Your task to perform on an android device: turn on priority inbox in the gmail app Image 0: 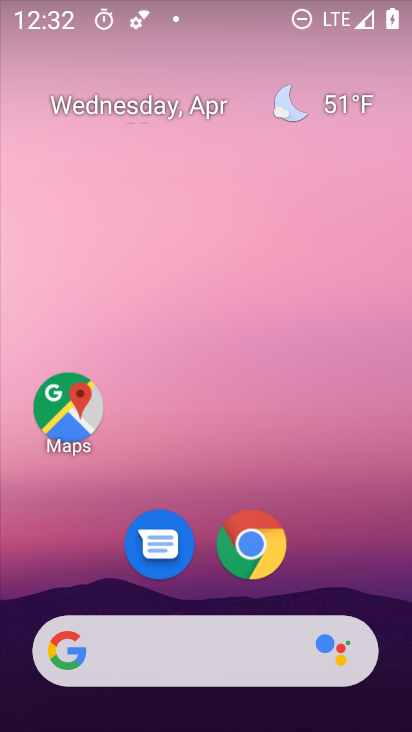
Step 0: drag from (353, 563) to (350, 169)
Your task to perform on an android device: turn on priority inbox in the gmail app Image 1: 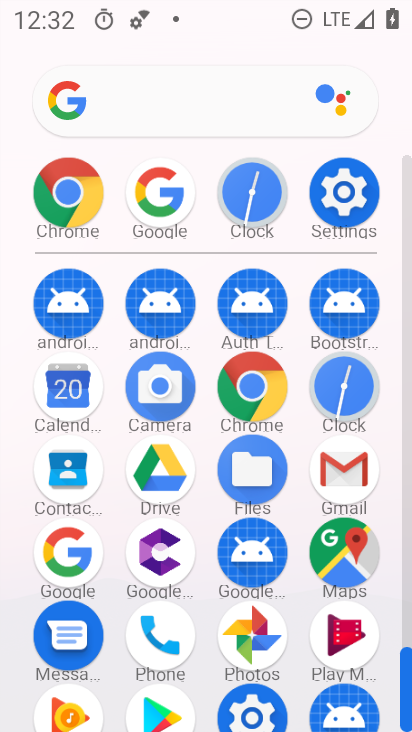
Step 1: click (351, 469)
Your task to perform on an android device: turn on priority inbox in the gmail app Image 2: 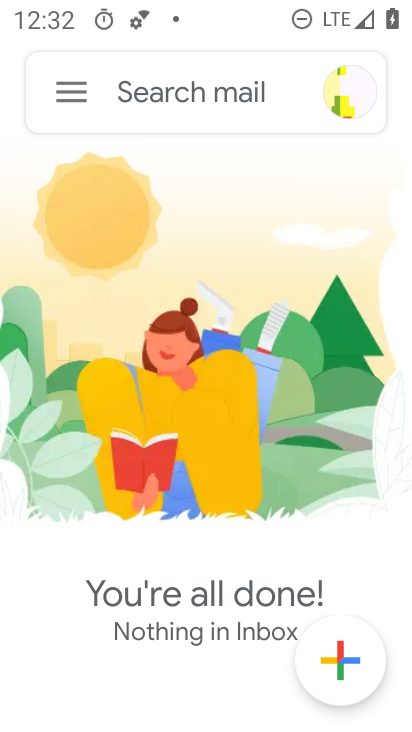
Step 2: click (68, 83)
Your task to perform on an android device: turn on priority inbox in the gmail app Image 3: 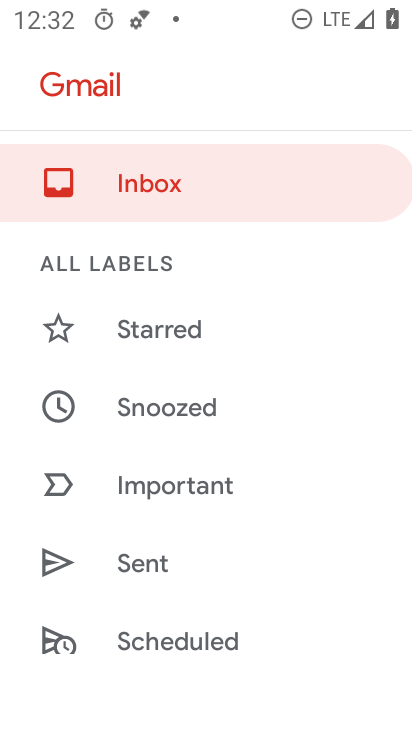
Step 3: drag from (328, 520) to (333, 428)
Your task to perform on an android device: turn on priority inbox in the gmail app Image 4: 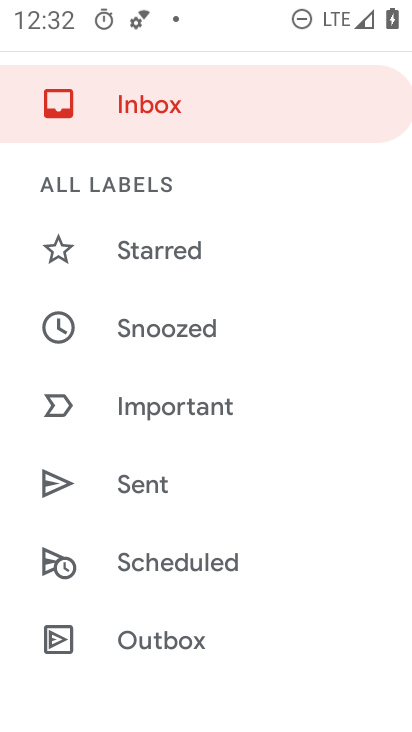
Step 4: drag from (336, 531) to (337, 414)
Your task to perform on an android device: turn on priority inbox in the gmail app Image 5: 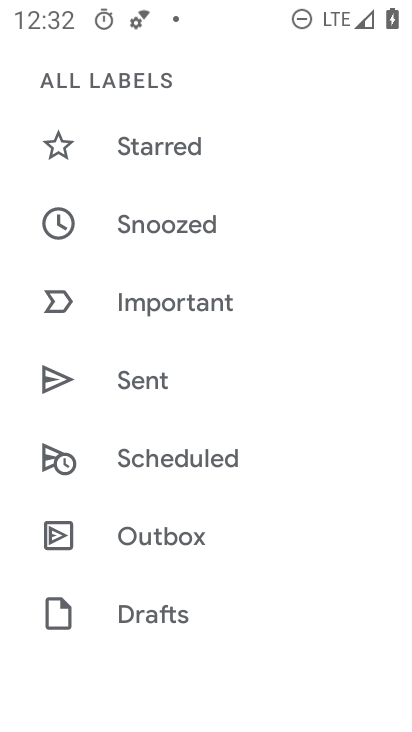
Step 5: drag from (328, 554) to (323, 433)
Your task to perform on an android device: turn on priority inbox in the gmail app Image 6: 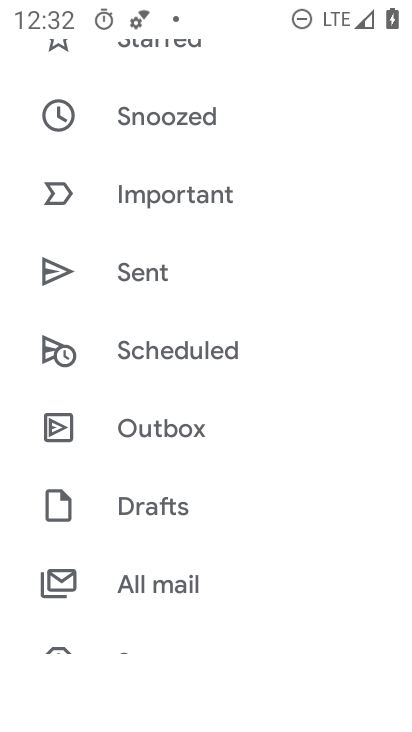
Step 6: drag from (319, 557) to (332, 450)
Your task to perform on an android device: turn on priority inbox in the gmail app Image 7: 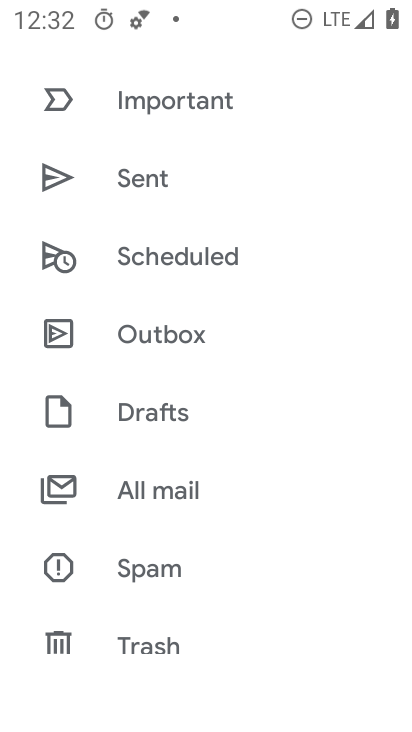
Step 7: drag from (341, 555) to (334, 416)
Your task to perform on an android device: turn on priority inbox in the gmail app Image 8: 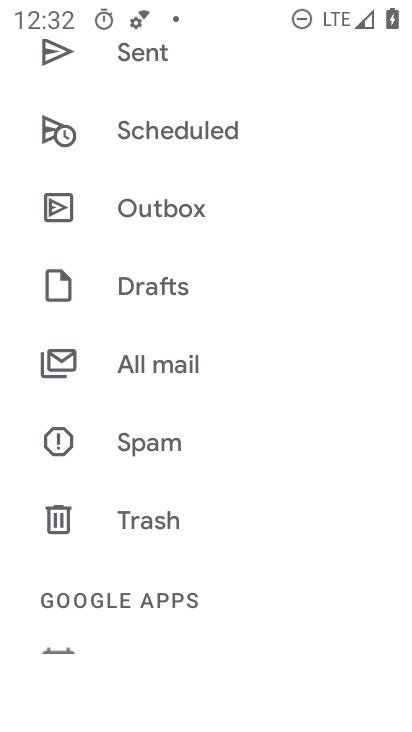
Step 8: drag from (313, 546) to (320, 401)
Your task to perform on an android device: turn on priority inbox in the gmail app Image 9: 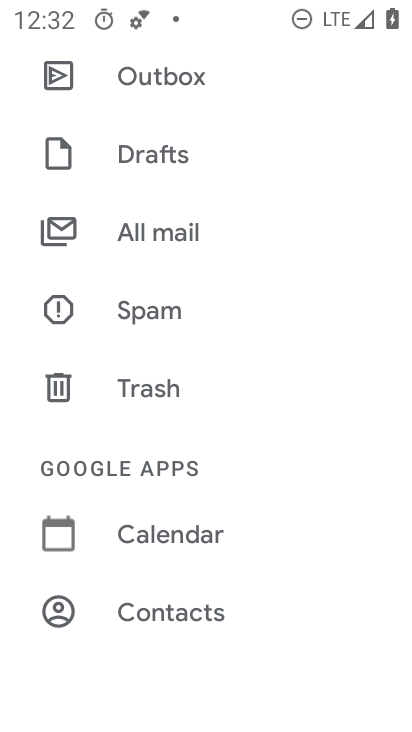
Step 9: drag from (329, 562) to (326, 432)
Your task to perform on an android device: turn on priority inbox in the gmail app Image 10: 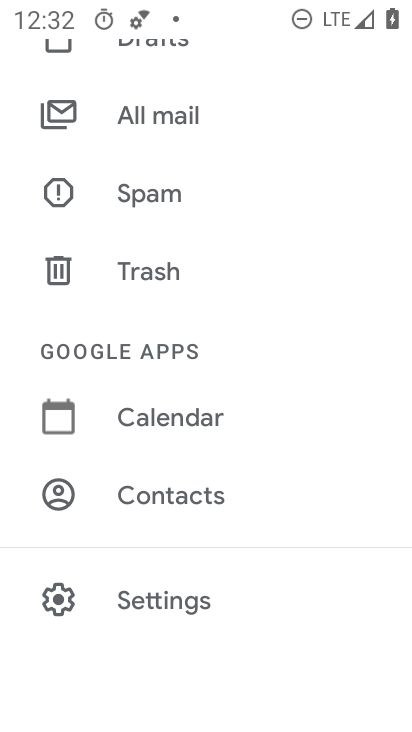
Step 10: drag from (307, 583) to (319, 489)
Your task to perform on an android device: turn on priority inbox in the gmail app Image 11: 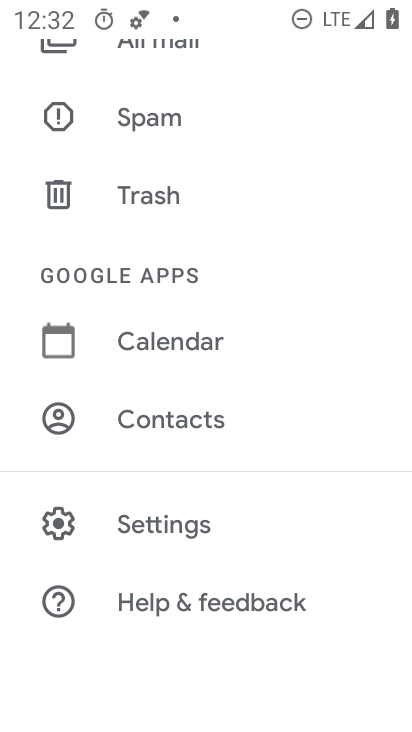
Step 11: click (206, 521)
Your task to perform on an android device: turn on priority inbox in the gmail app Image 12: 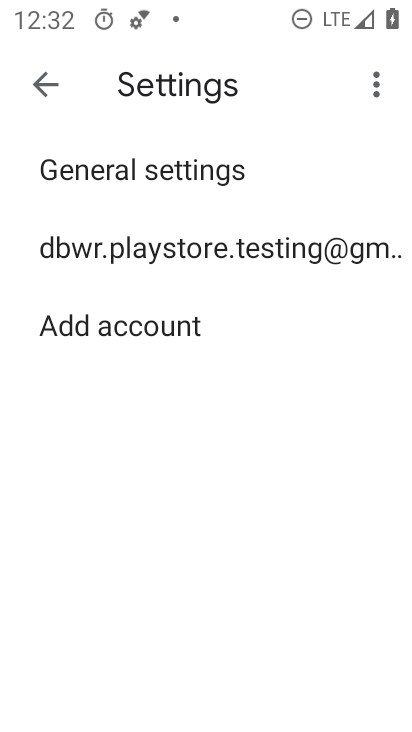
Step 12: click (265, 246)
Your task to perform on an android device: turn on priority inbox in the gmail app Image 13: 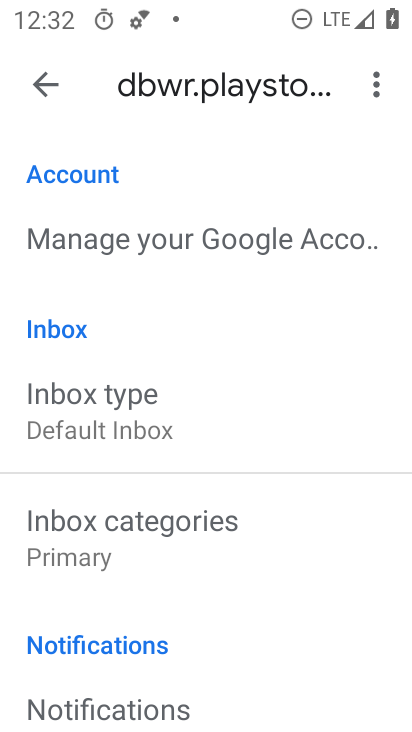
Step 13: drag from (325, 574) to (347, 399)
Your task to perform on an android device: turn on priority inbox in the gmail app Image 14: 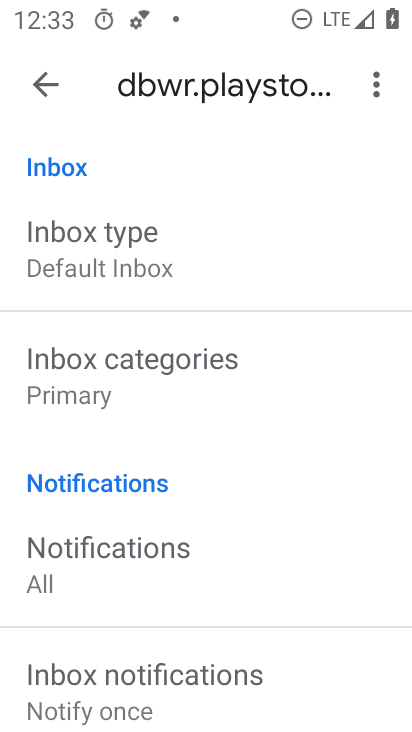
Step 14: drag from (354, 578) to (361, 451)
Your task to perform on an android device: turn on priority inbox in the gmail app Image 15: 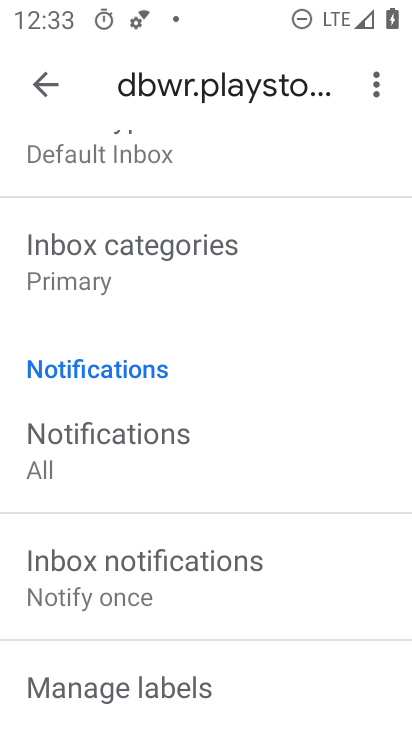
Step 15: drag from (364, 585) to (362, 448)
Your task to perform on an android device: turn on priority inbox in the gmail app Image 16: 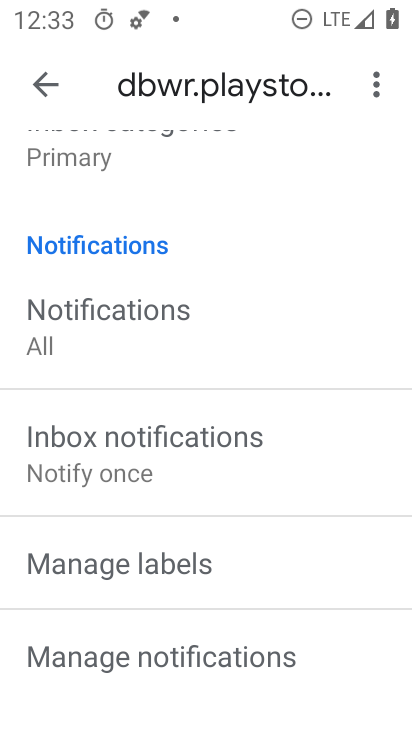
Step 16: drag from (365, 645) to (366, 516)
Your task to perform on an android device: turn on priority inbox in the gmail app Image 17: 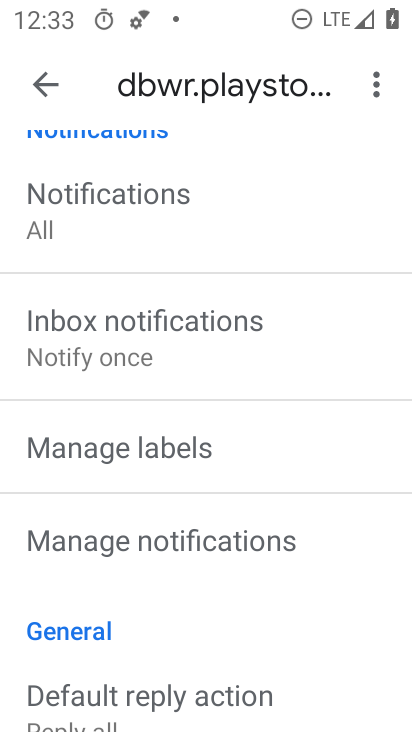
Step 17: drag from (353, 629) to (350, 495)
Your task to perform on an android device: turn on priority inbox in the gmail app Image 18: 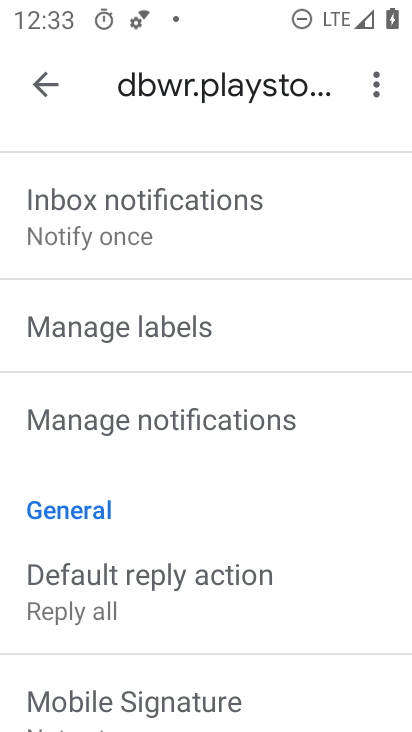
Step 18: drag from (338, 656) to (340, 534)
Your task to perform on an android device: turn on priority inbox in the gmail app Image 19: 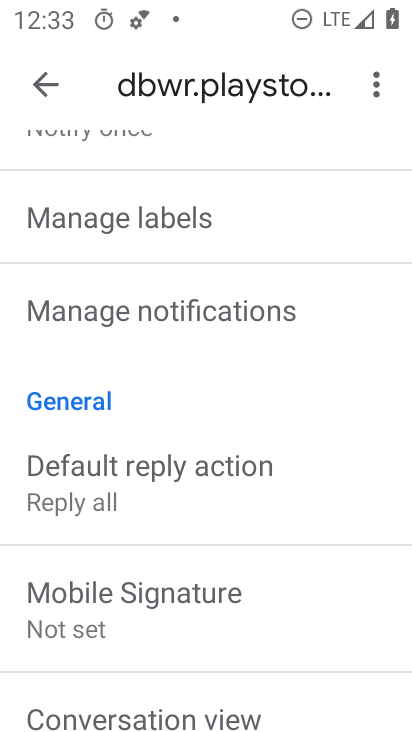
Step 19: drag from (358, 671) to (357, 536)
Your task to perform on an android device: turn on priority inbox in the gmail app Image 20: 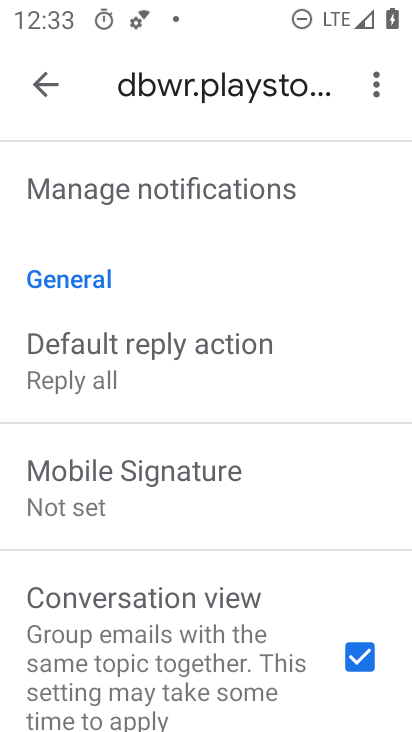
Step 20: drag from (389, 685) to (388, 558)
Your task to perform on an android device: turn on priority inbox in the gmail app Image 21: 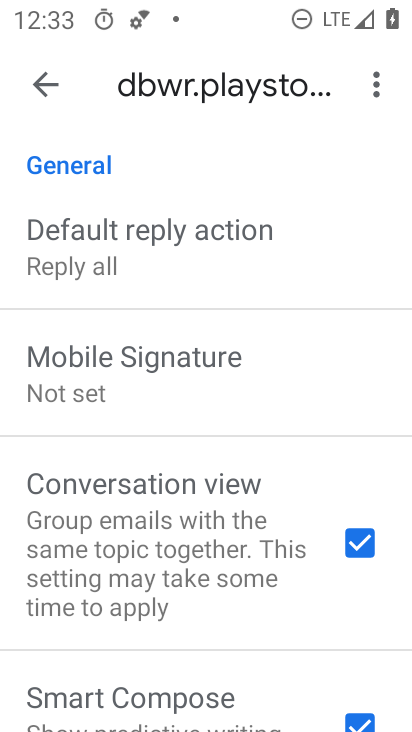
Step 21: drag from (308, 641) to (306, 525)
Your task to perform on an android device: turn on priority inbox in the gmail app Image 22: 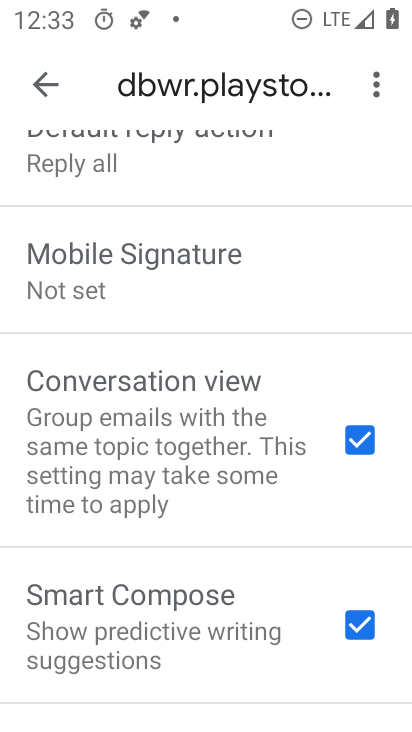
Step 22: drag from (300, 628) to (311, 546)
Your task to perform on an android device: turn on priority inbox in the gmail app Image 23: 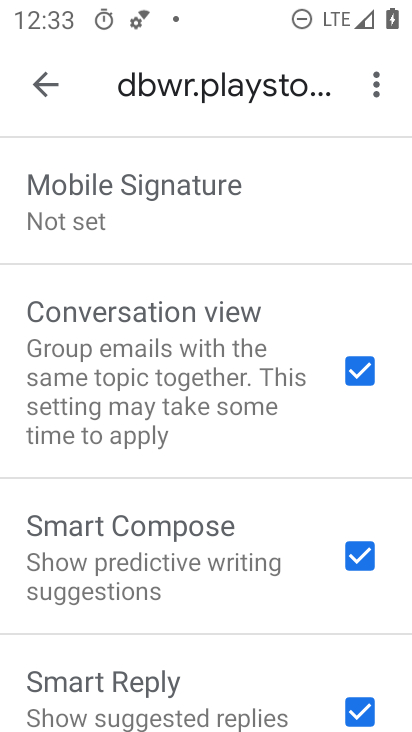
Step 23: drag from (283, 651) to (305, 471)
Your task to perform on an android device: turn on priority inbox in the gmail app Image 24: 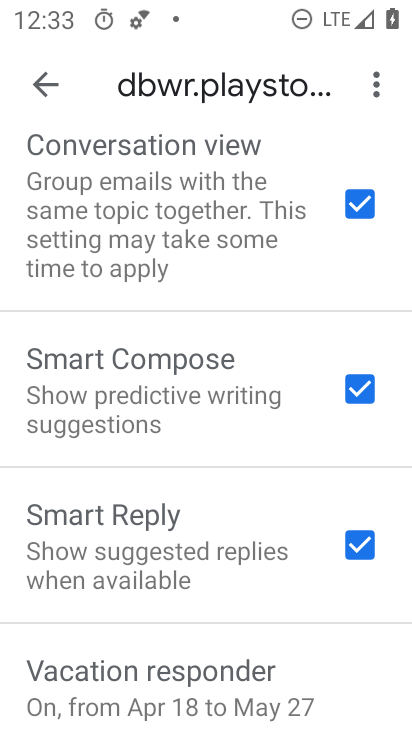
Step 24: drag from (291, 625) to (295, 486)
Your task to perform on an android device: turn on priority inbox in the gmail app Image 25: 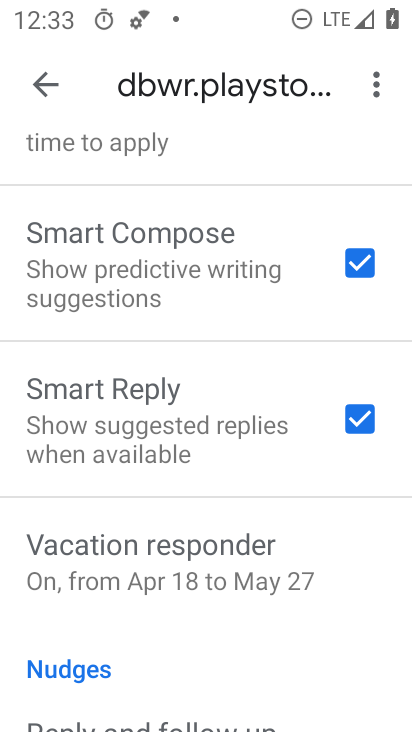
Step 25: drag from (298, 349) to (293, 477)
Your task to perform on an android device: turn on priority inbox in the gmail app Image 26: 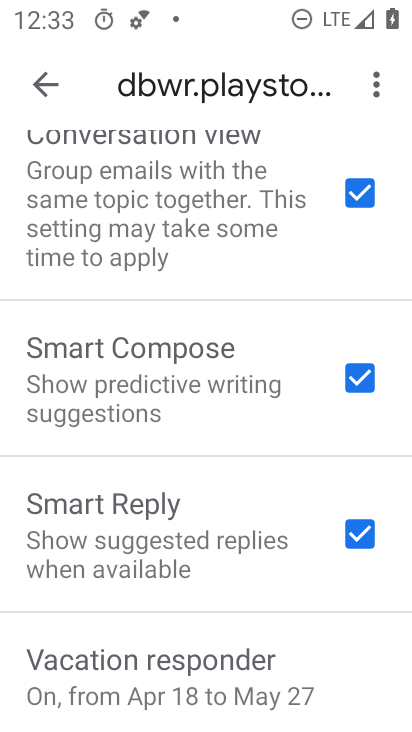
Step 26: drag from (285, 307) to (283, 459)
Your task to perform on an android device: turn on priority inbox in the gmail app Image 27: 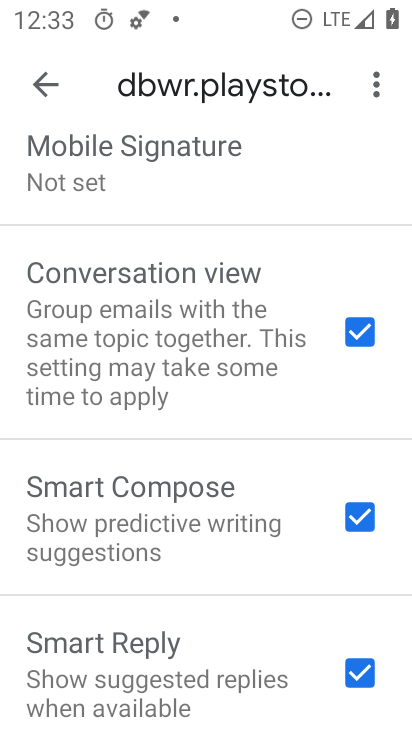
Step 27: drag from (289, 365) to (292, 505)
Your task to perform on an android device: turn on priority inbox in the gmail app Image 28: 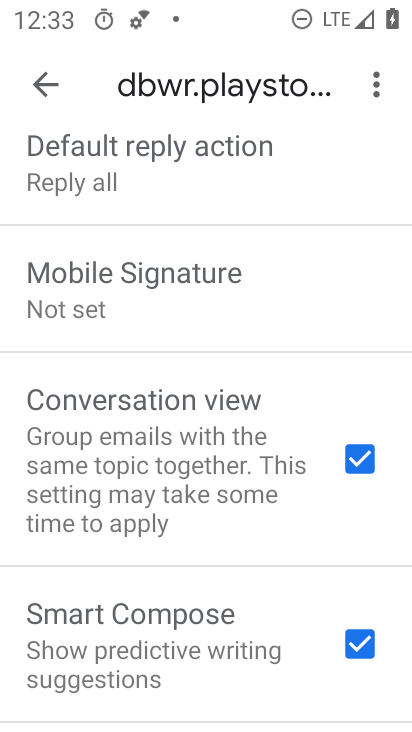
Step 28: drag from (287, 322) to (288, 469)
Your task to perform on an android device: turn on priority inbox in the gmail app Image 29: 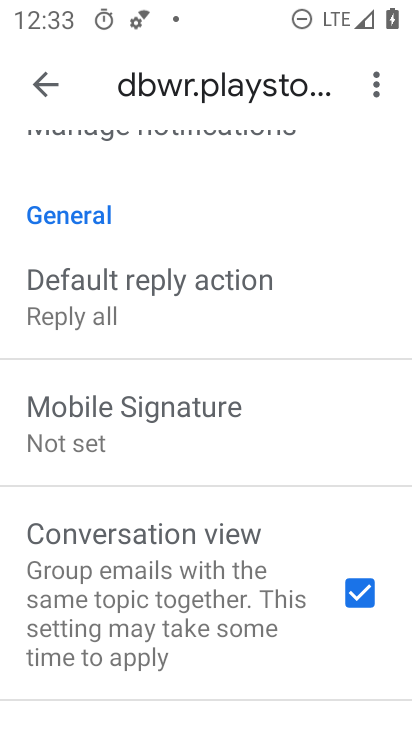
Step 29: drag from (314, 285) to (315, 444)
Your task to perform on an android device: turn on priority inbox in the gmail app Image 30: 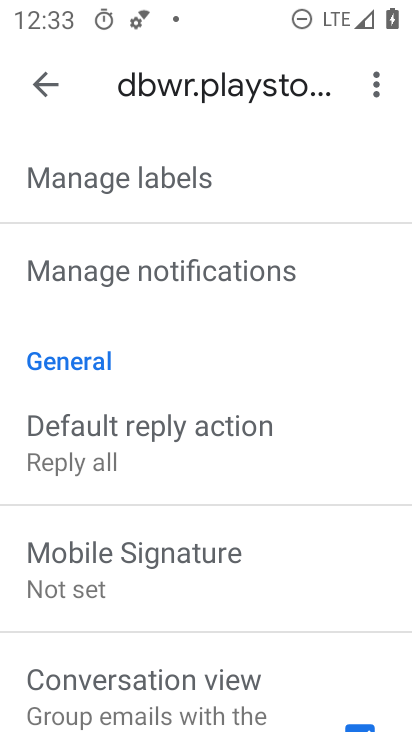
Step 30: drag from (325, 263) to (324, 423)
Your task to perform on an android device: turn on priority inbox in the gmail app Image 31: 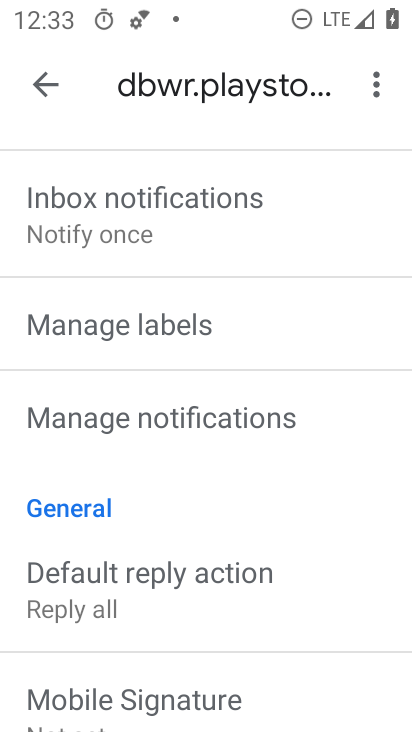
Step 31: drag from (320, 248) to (325, 405)
Your task to perform on an android device: turn on priority inbox in the gmail app Image 32: 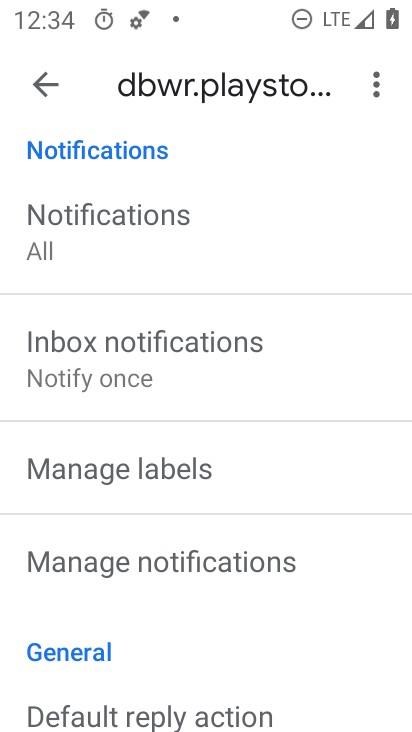
Step 32: drag from (310, 245) to (321, 403)
Your task to perform on an android device: turn on priority inbox in the gmail app Image 33: 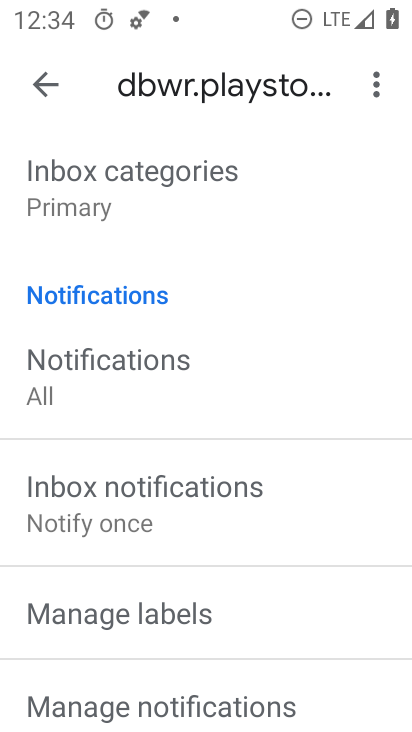
Step 33: drag from (301, 230) to (293, 397)
Your task to perform on an android device: turn on priority inbox in the gmail app Image 34: 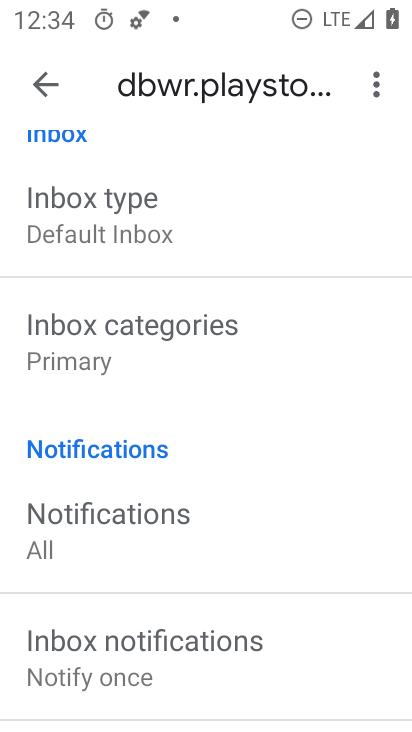
Step 34: drag from (282, 216) to (277, 384)
Your task to perform on an android device: turn on priority inbox in the gmail app Image 35: 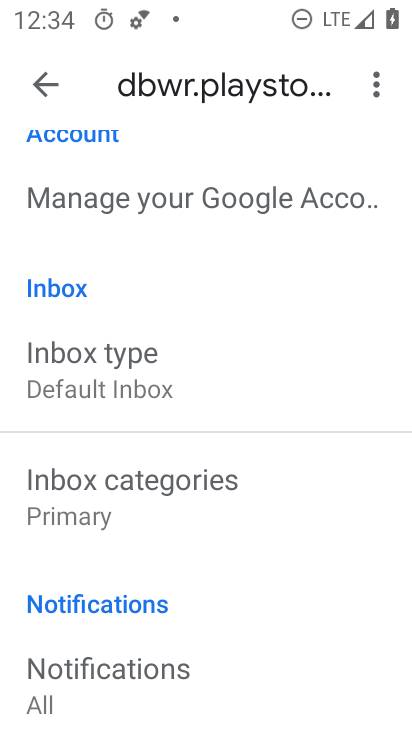
Step 35: click (119, 382)
Your task to perform on an android device: turn on priority inbox in the gmail app Image 36: 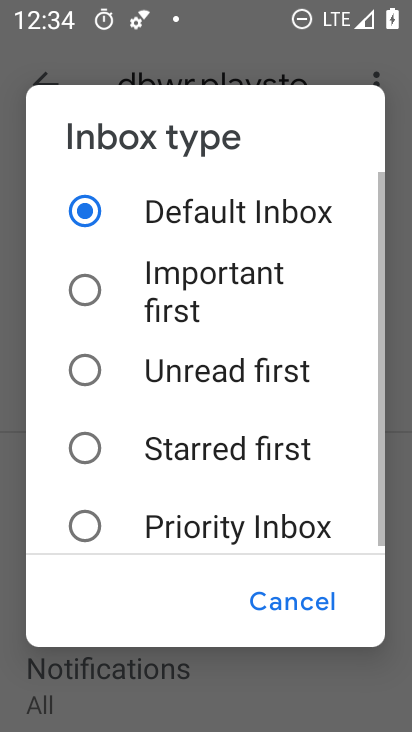
Step 36: click (160, 520)
Your task to perform on an android device: turn on priority inbox in the gmail app Image 37: 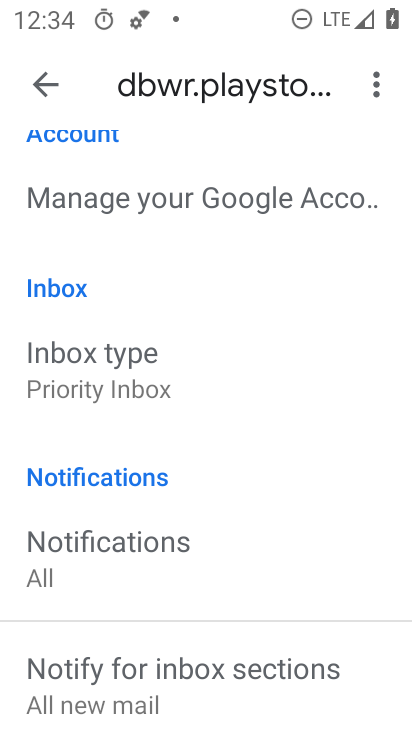
Step 37: task complete